Your task to perform on an android device: Open notification settings Image 0: 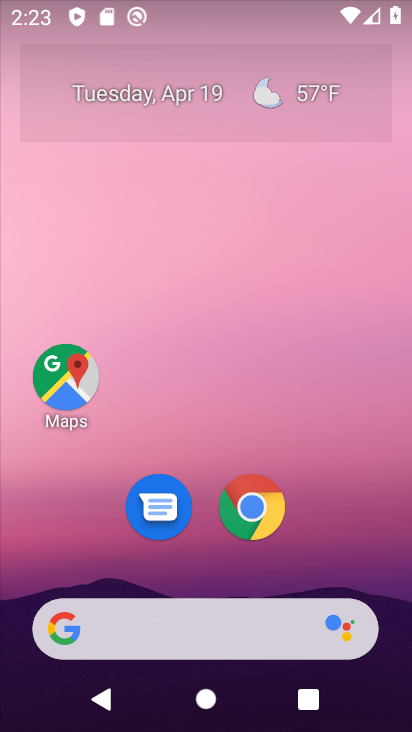
Step 0: drag from (190, 569) to (206, 173)
Your task to perform on an android device: Open notification settings Image 1: 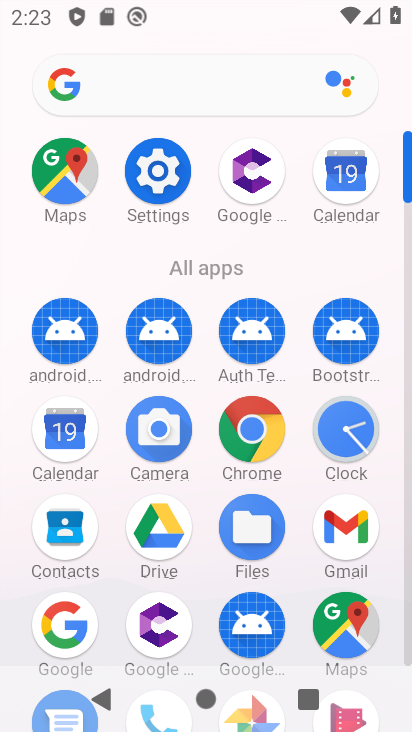
Step 1: click (174, 163)
Your task to perform on an android device: Open notification settings Image 2: 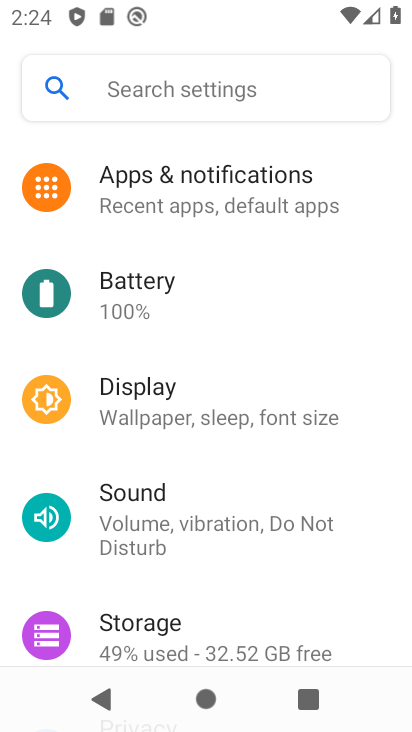
Step 2: click (180, 207)
Your task to perform on an android device: Open notification settings Image 3: 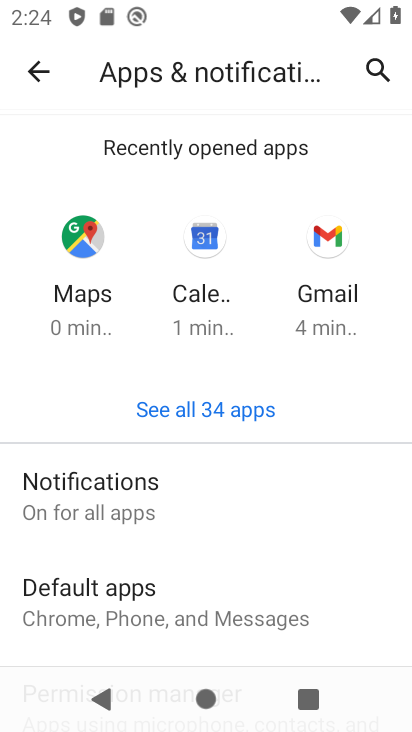
Step 3: task complete